Your task to perform on an android device: open sync settings in chrome Image 0: 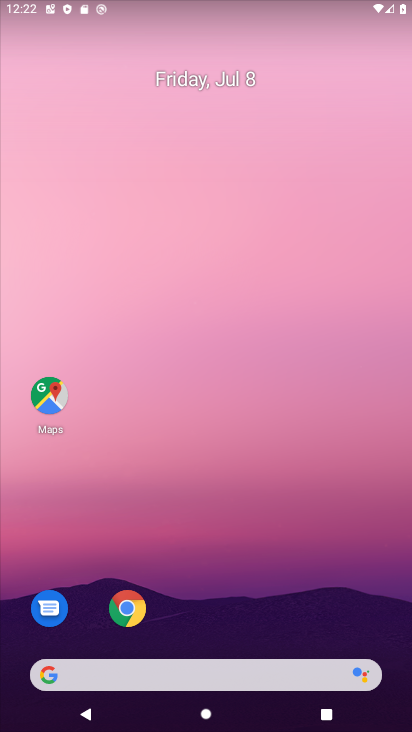
Step 0: click (120, 624)
Your task to perform on an android device: open sync settings in chrome Image 1: 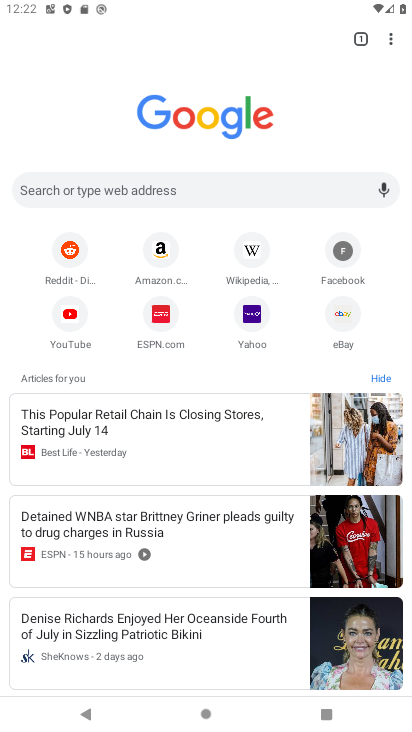
Step 1: click (385, 41)
Your task to perform on an android device: open sync settings in chrome Image 2: 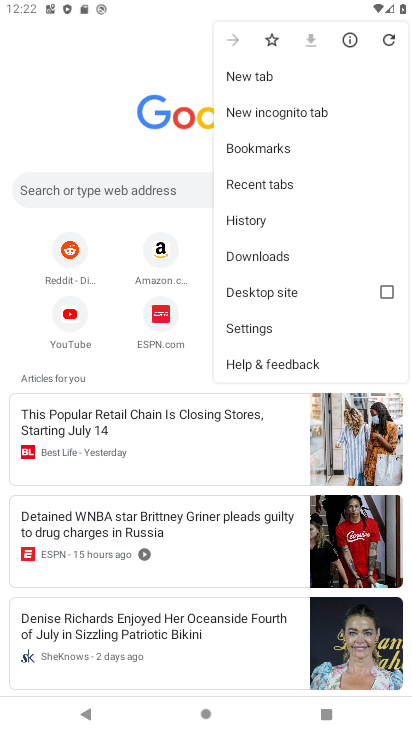
Step 2: click (273, 334)
Your task to perform on an android device: open sync settings in chrome Image 3: 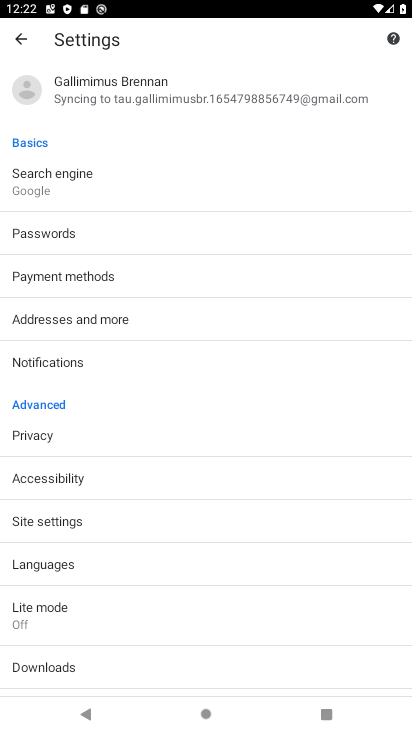
Step 3: click (108, 103)
Your task to perform on an android device: open sync settings in chrome Image 4: 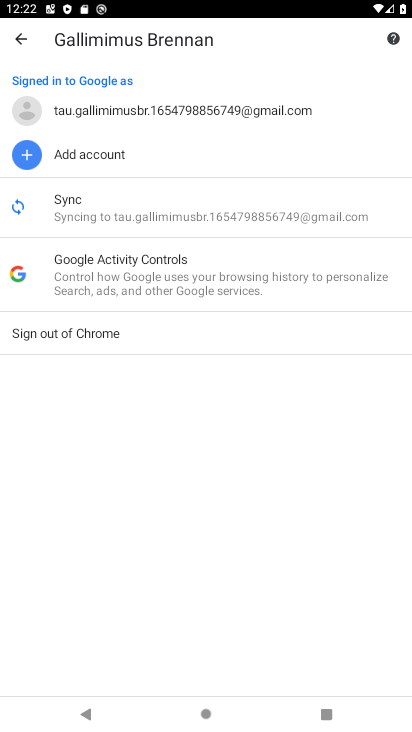
Step 4: click (154, 199)
Your task to perform on an android device: open sync settings in chrome Image 5: 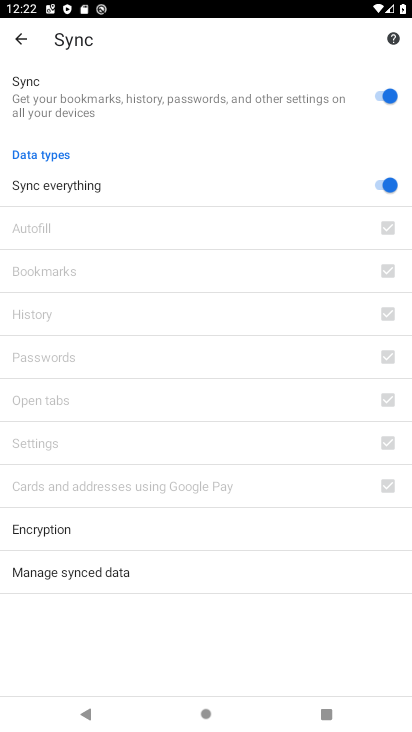
Step 5: task complete